Your task to perform on an android device: Open settings Image 0: 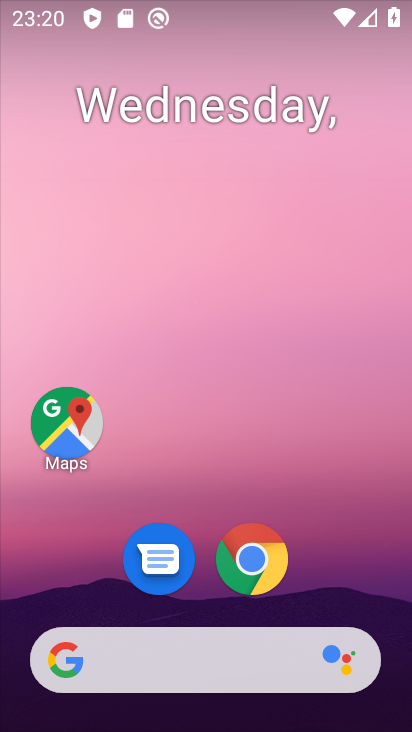
Step 0: drag from (207, 547) to (212, 233)
Your task to perform on an android device: Open settings Image 1: 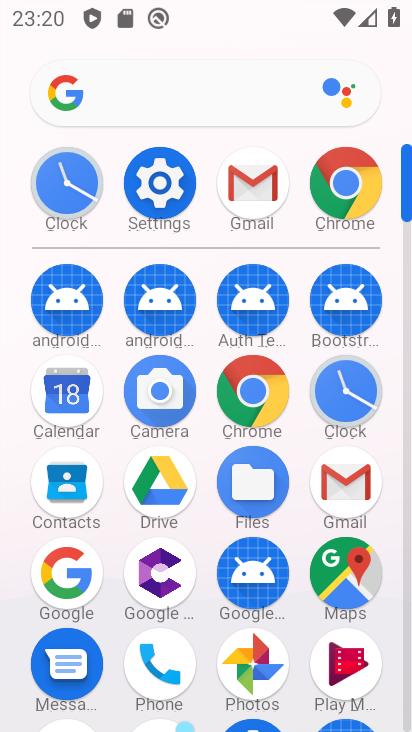
Step 1: click (161, 187)
Your task to perform on an android device: Open settings Image 2: 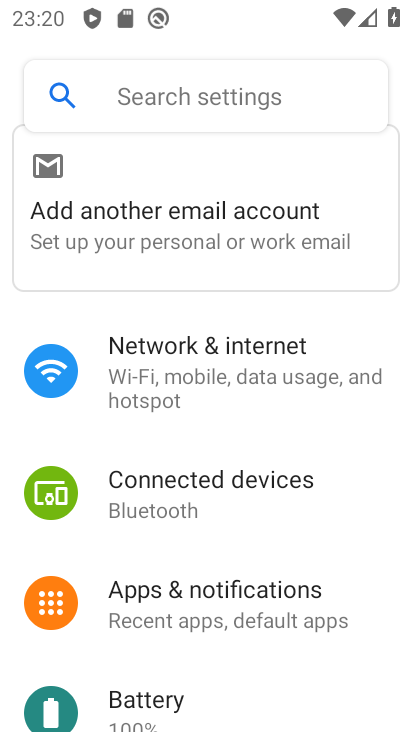
Step 2: task complete